Your task to perform on an android device: toggle pop-ups in chrome Image 0: 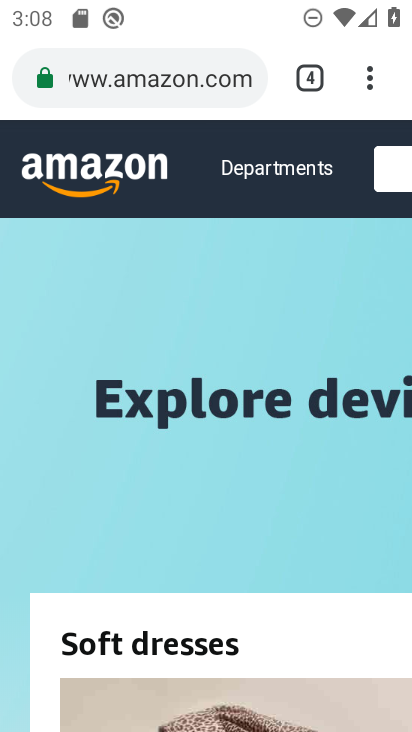
Step 0: press home button
Your task to perform on an android device: toggle pop-ups in chrome Image 1: 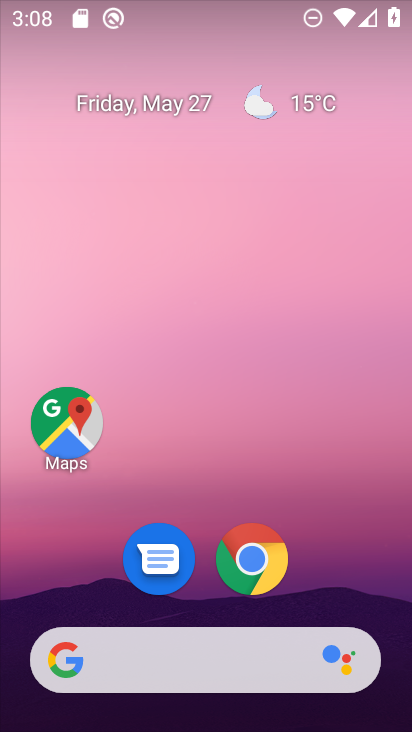
Step 1: drag from (155, 646) to (218, 15)
Your task to perform on an android device: toggle pop-ups in chrome Image 2: 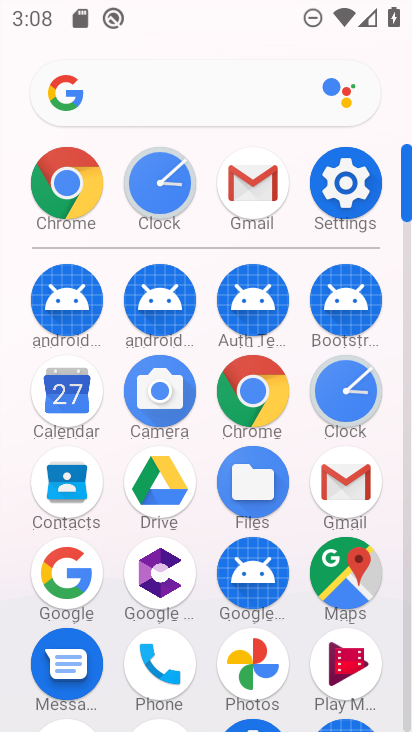
Step 2: click (256, 394)
Your task to perform on an android device: toggle pop-ups in chrome Image 3: 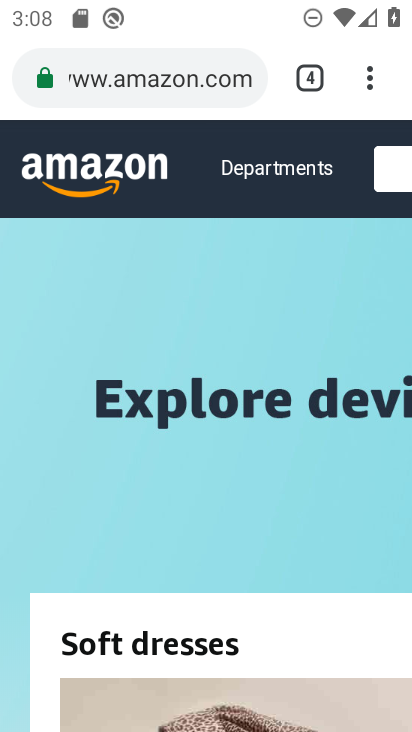
Step 3: drag from (364, 80) to (151, 617)
Your task to perform on an android device: toggle pop-ups in chrome Image 4: 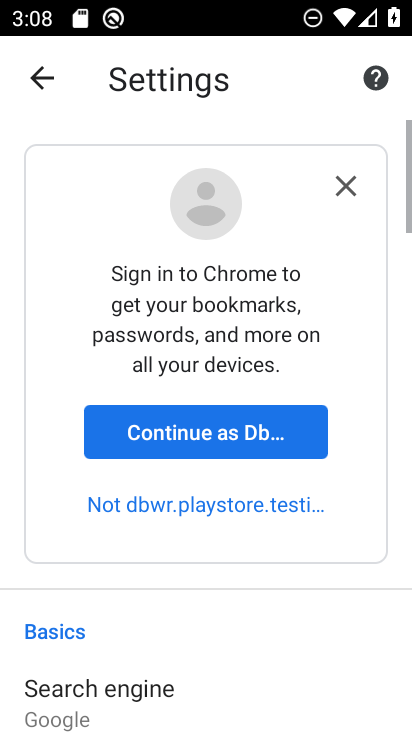
Step 4: drag from (151, 617) to (57, 1)
Your task to perform on an android device: toggle pop-ups in chrome Image 5: 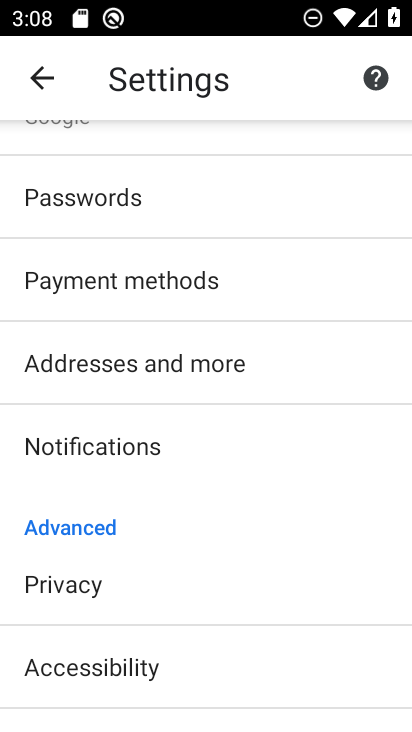
Step 5: drag from (132, 688) to (161, 76)
Your task to perform on an android device: toggle pop-ups in chrome Image 6: 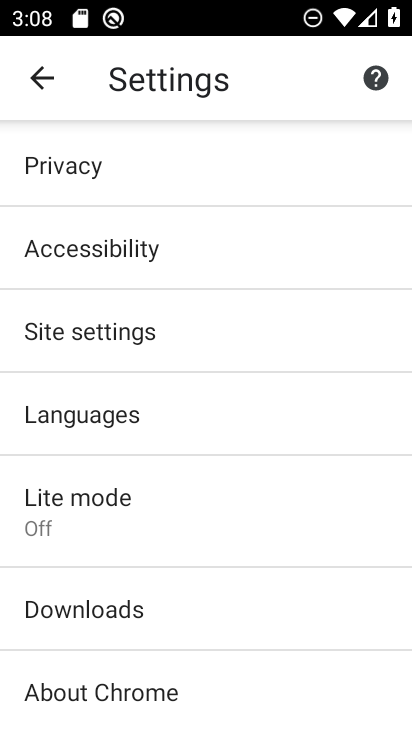
Step 6: click (126, 345)
Your task to perform on an android device: toggle pop-ups in chrome Image 7: 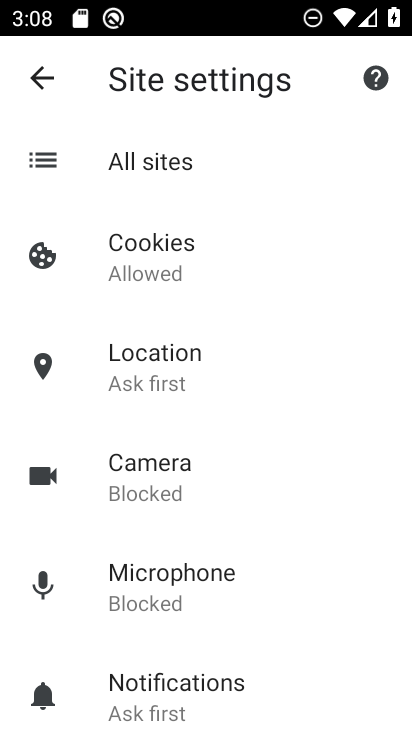
Step 7: drag from (182, 638) to (257, 14)
Your task to perform on an android device: toggle pop-ups in chrome Image 8: 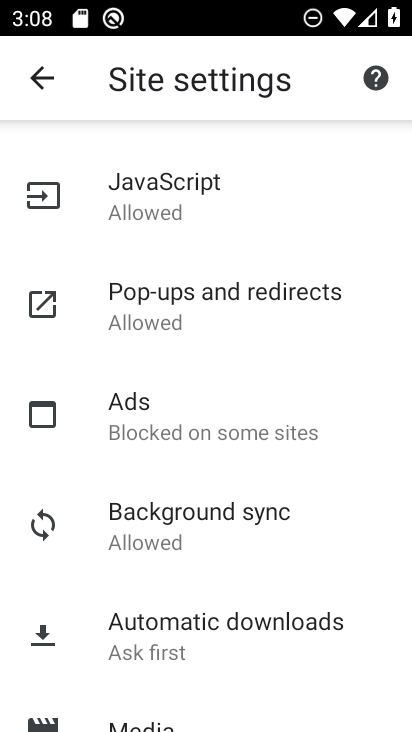
Step 8: click (263, 274)
Your task to perform on an android device: toggle pop-ups in chrome Image 9: 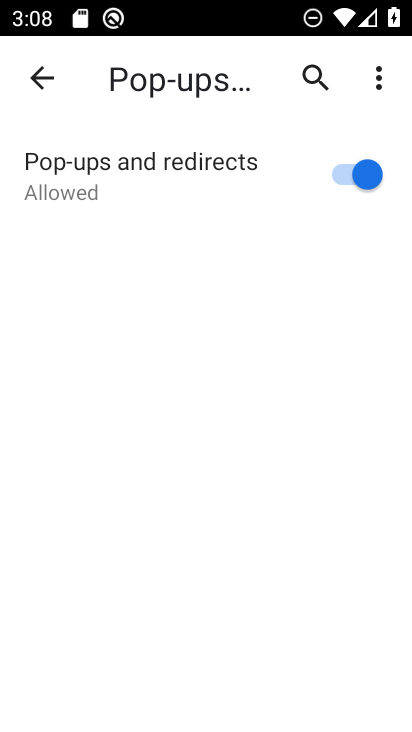
Step 9: task complete